Your task to perform on an android device: Do I have any events today? Image 0: 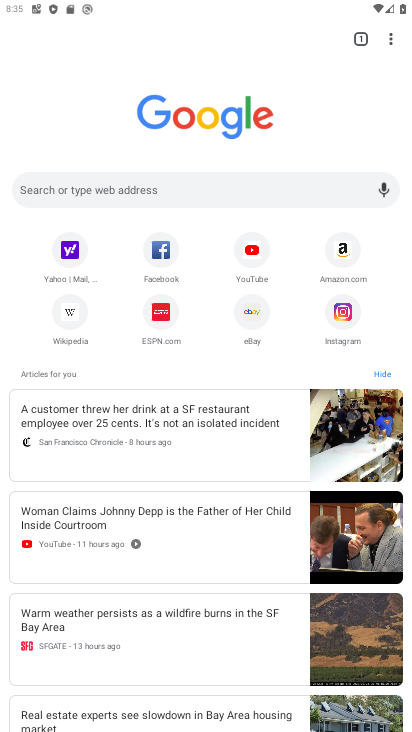
Step 0: press home button
Your task to perform on an android device: Do I have any events today? Image 1: 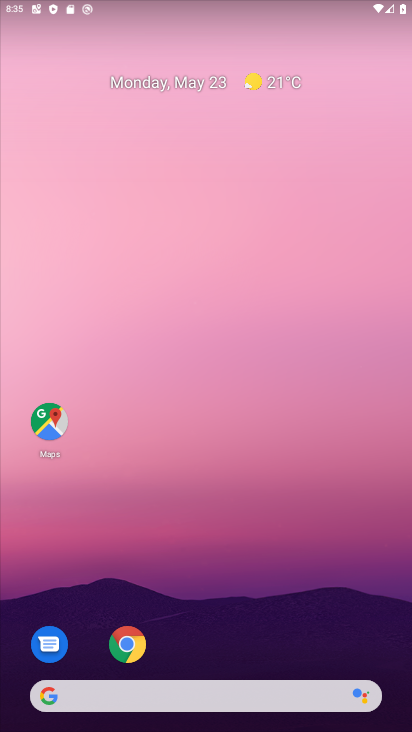
Step 1: drag from (261, 664) to (250, 97)
Your task to perform on an android device: Do I have any events today? Image 2: 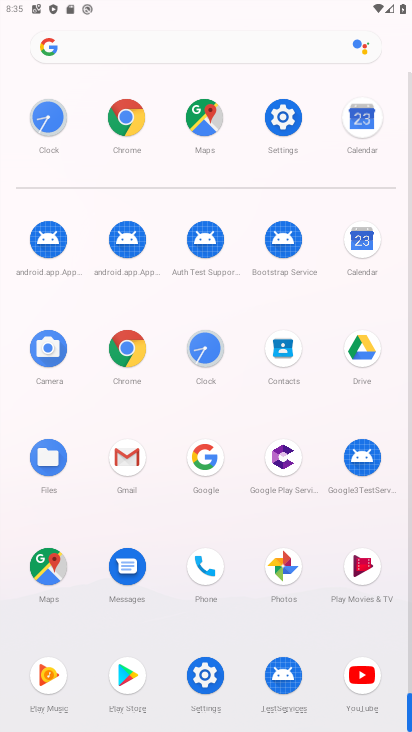
Step 2: click (355, 127)
Your task to perform on an android device: Do I have any events today? Image 3: 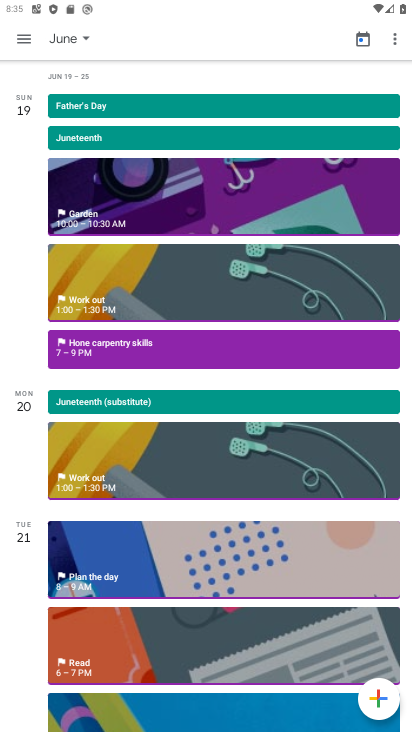
Step 3: click (70, 38)
Your task to perform on an android device: Do I have any events today? Image 4: 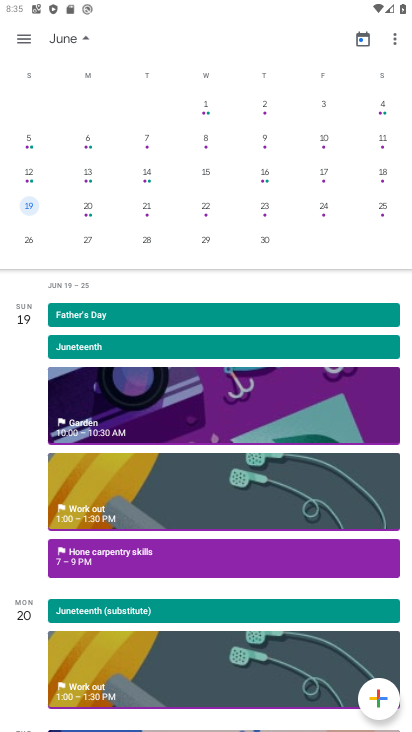
Step 4: drag from (72, 160) to (377, 171)
Your task to perform on an android device: Do I have any events today? Image 5: 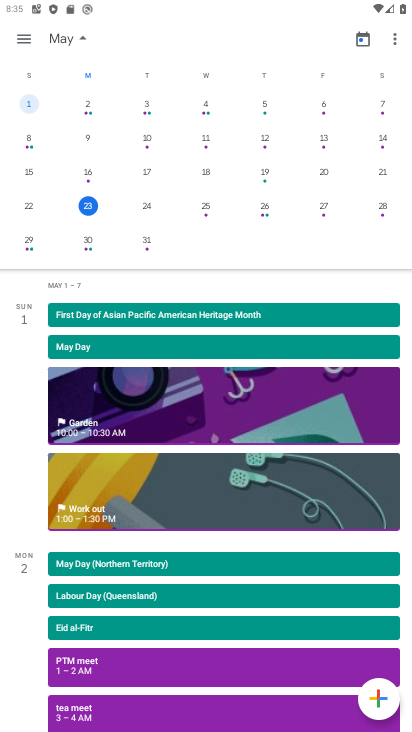
Step 5: click (90, 196)
Your task to perform on an android device: Do I have any events today? Image 6: 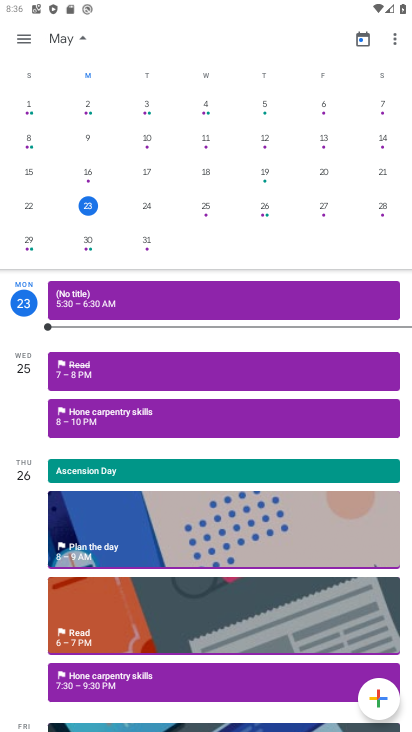
Step 6: task complete